Your task to perform on an android device: check the backup settings in the google photos Image 0: 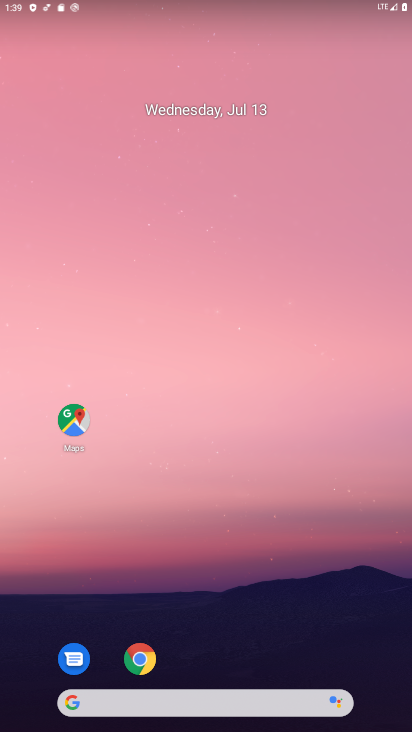
Step 0: drag from (340, 664) to (345, 82)
Your task to perform on an android device: check the backup settings in the google photos Image 1: 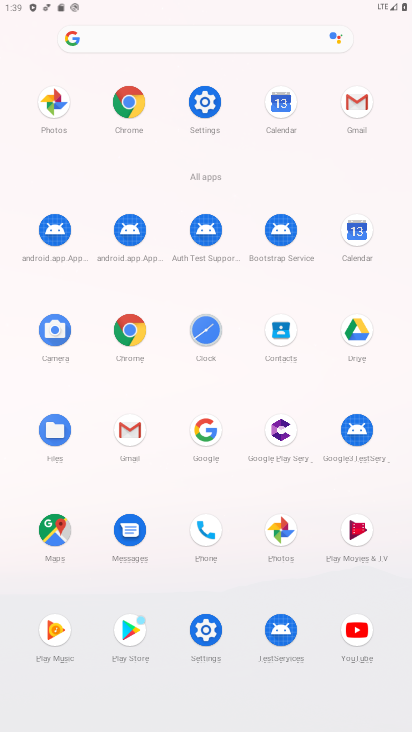
Step 1: click (278, 531)
Your task to perform on an android device: check the backup settings in the google photos Image 2: 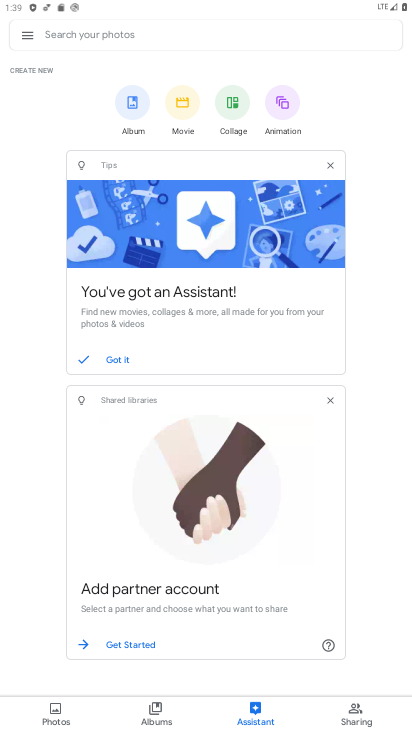
Step 2: click (25, 34)
Your task to perform on an android device: check the backup settings in the google photos Image 3: 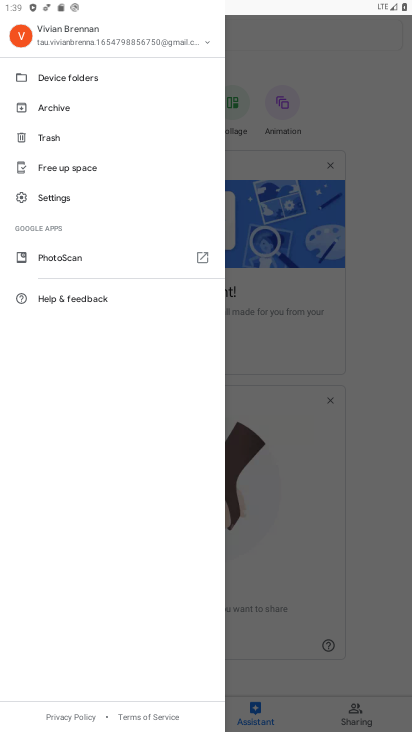
Step 3: click (52, 199)
Your task to perform on an android device: check the backup settings in the google photos Image 4: 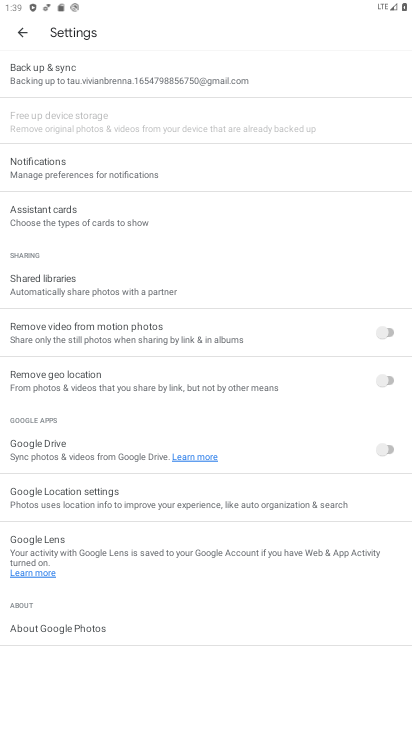
Step 4: click (55, 67)
Your task to perform on an android device: check the backup settings in the google photos Image 5: 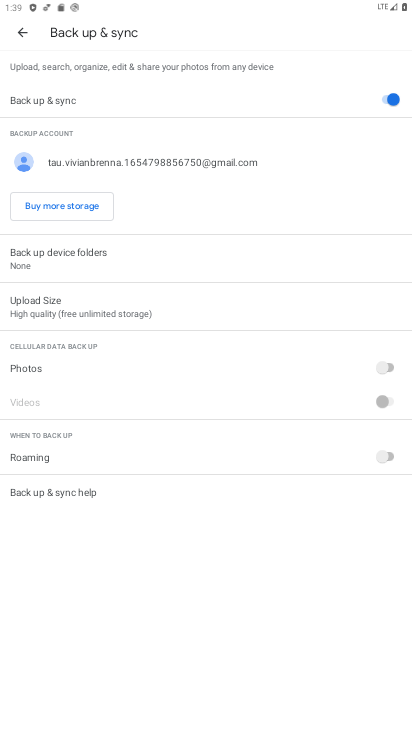
Step 5: task complete